Your task to perform on an android device: change notification settings in the gmail app Image 0: 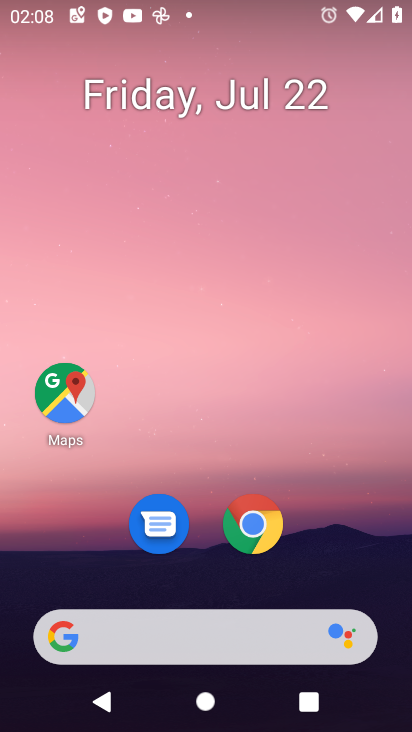
Step 0: press home button
Your task to perform on an android device: change notification settings in the gmail app Image 1: 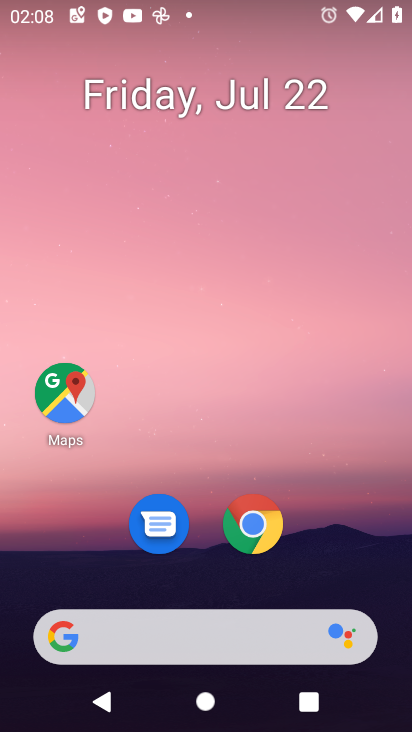
Step 1: drag from (209, 634) to (291, 58)
Your task to perform on an android device: change notification settings in the gmail app Image 2: 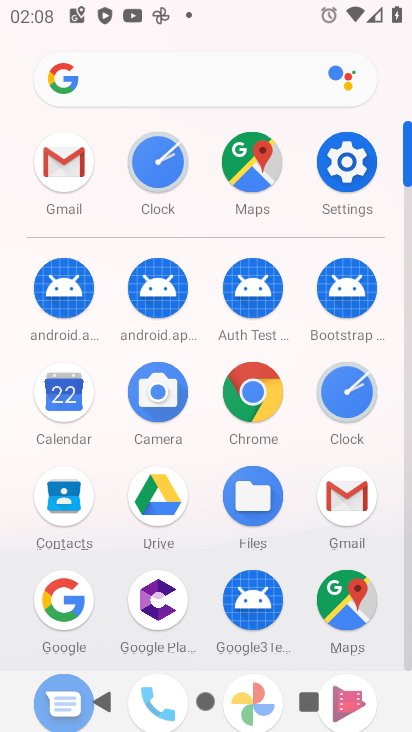
Step 2: click (68, 168)
Your task to perform on an android device: change notification settings in the gmail app Image 3: 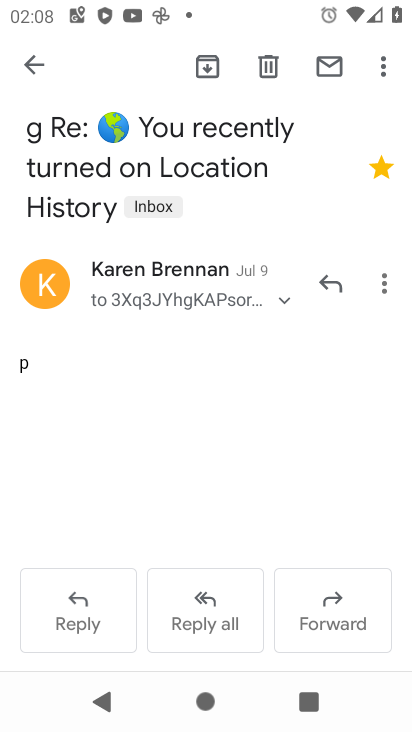
Step 3: click (33, 61)
Your task to perform on an android device: change notification settings in the gmail app Image 4: 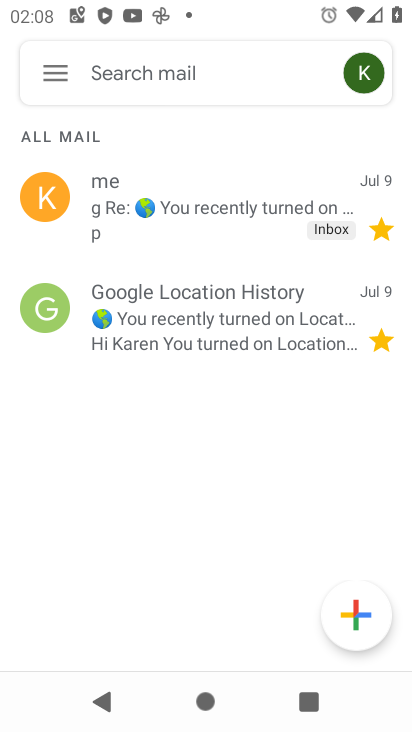
Step 4: click (54, 77)
Your task to perform on an android device: change notification settings in the gmail app Image 5: 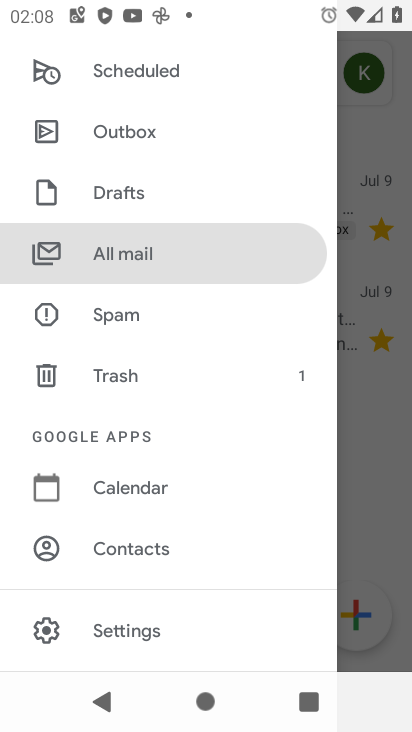
Step 5: click (140, 631)
Your task to perform on an android device: change notification settings in the gmail app Image 6: 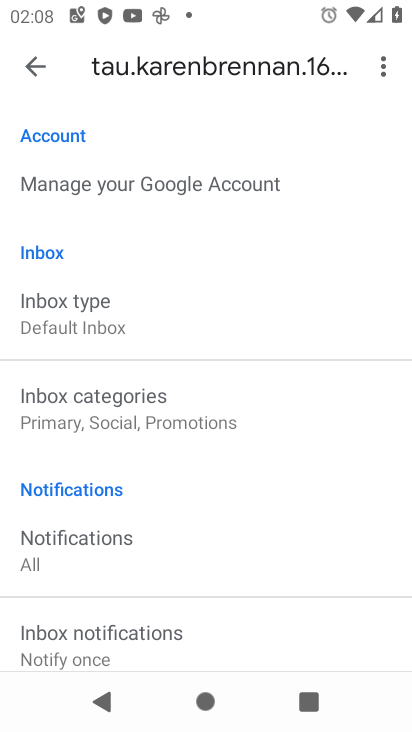
Step 6: click (79, 553)
Your task to perform on an android device: change notification settings in the gmail app Image 7: 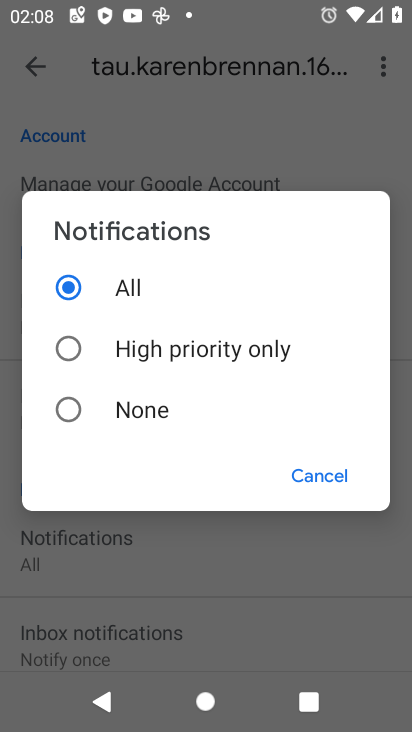
Step 7: click (63, 413)
Your task to perform on an android device: change notification settings in the gmail app Image 8: 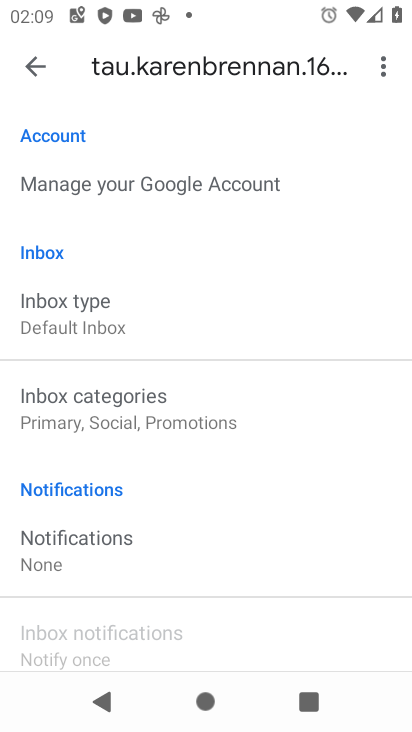
Step 8: task complete